Your task to perform on an android device: Search for pizza restaurants on Maps Image 0: 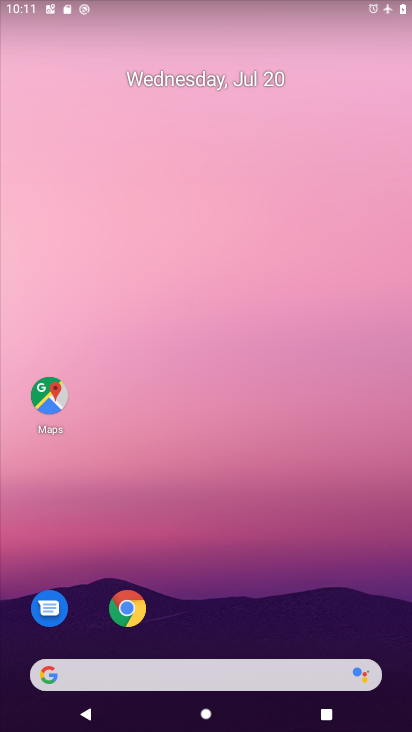
Step 0: drag from (269, 570) to (239, 209)
Your task to perform on an android device: Search for pizza restaurants on Maps Image 1: 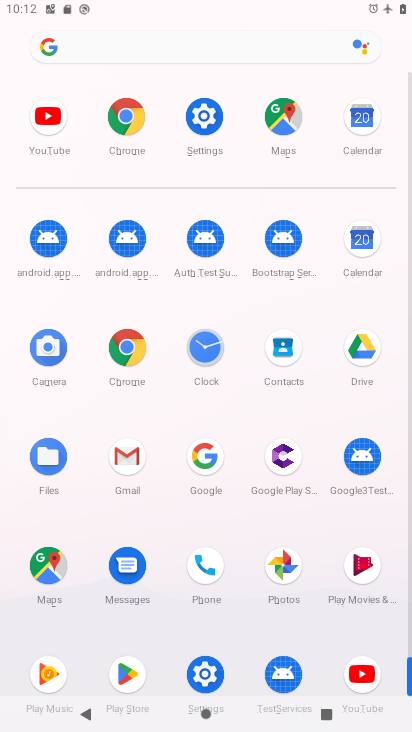
Step 1: click (282, 109)
Your task to perform on an android device: Search for pizza restaurants on Maps Image 2: 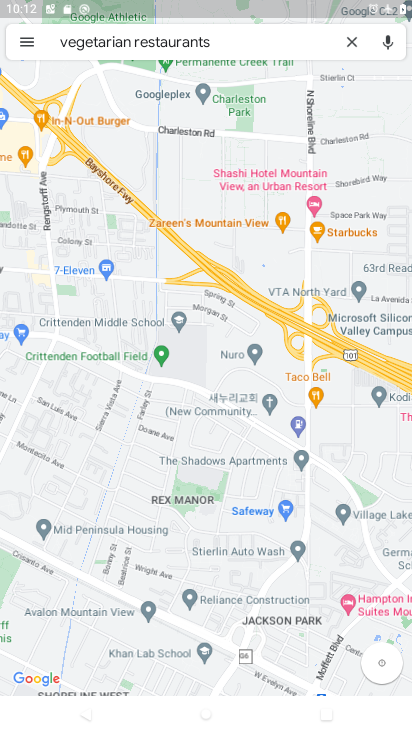
Step 2: click (361, 34)
Your task to perform on an android device: Search for pizza restaurants on Maps Image 3: 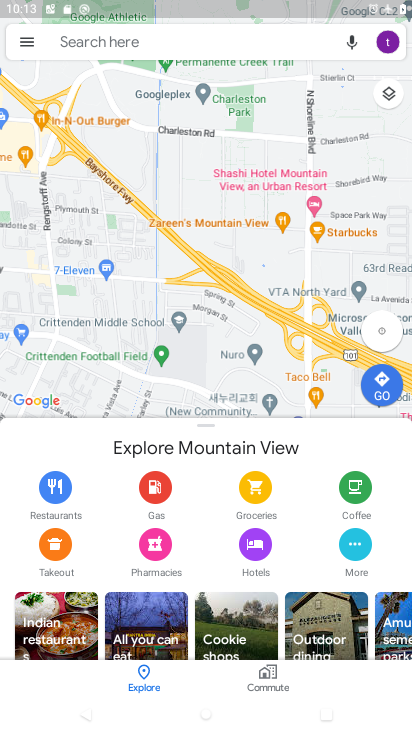
Step 3: click (146, 34)
Your task to perform on an android device: Search for pizza restaurants on Maps Image 4: 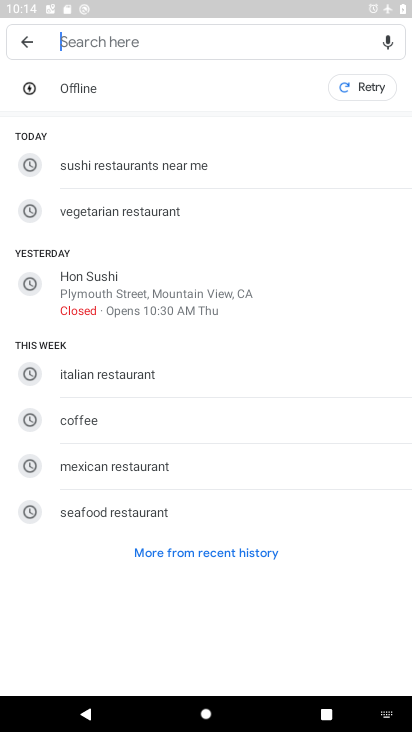
Step 4: click (197, 29)
Your task to perform on an android device: Search for pizza restaurants on Maps Image 5: 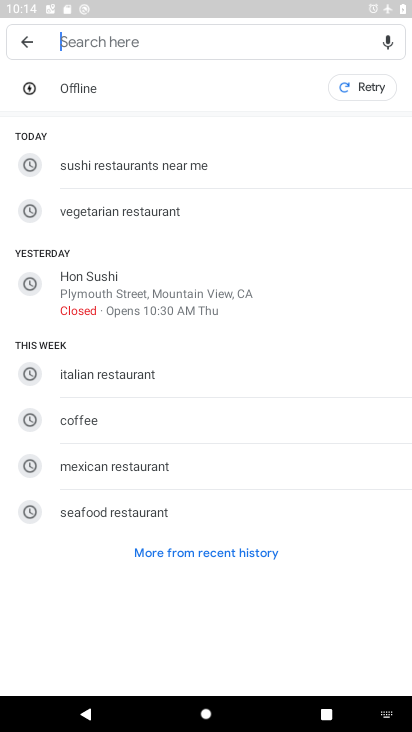
Step 5: type "pizza restaurants "
Your task to perform on an android device: Search for pizza restaurants on Maps Image 6: 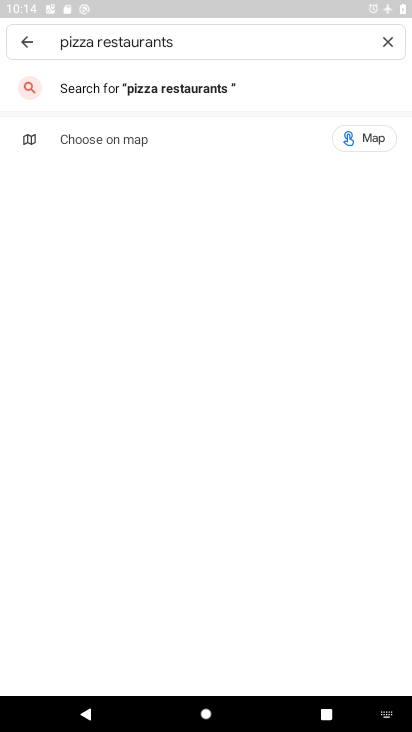
Step 6: click (209, 80)
Your task to perform on an android device: Search for pizza restaurants on Maps Image 7: 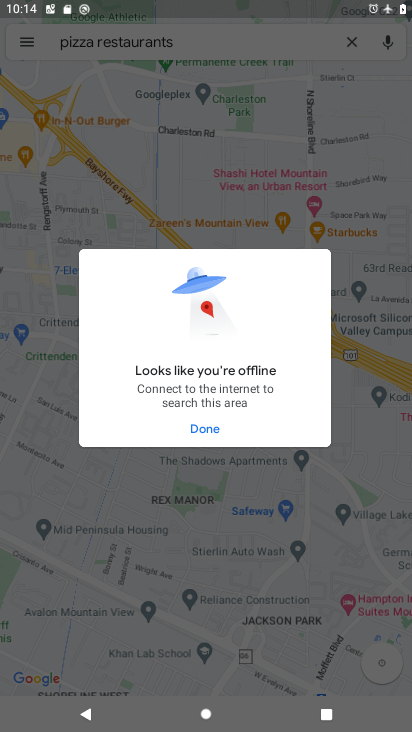
Step 7: task complete